Your task to perform on an android device: Go to battery settings Image 0: 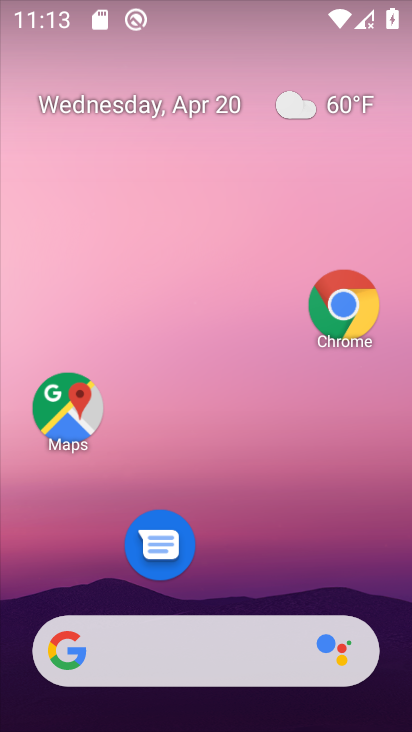
Step 0: click (249, 80)
Your task to perform on an android device: Go to battery settings Image 1: 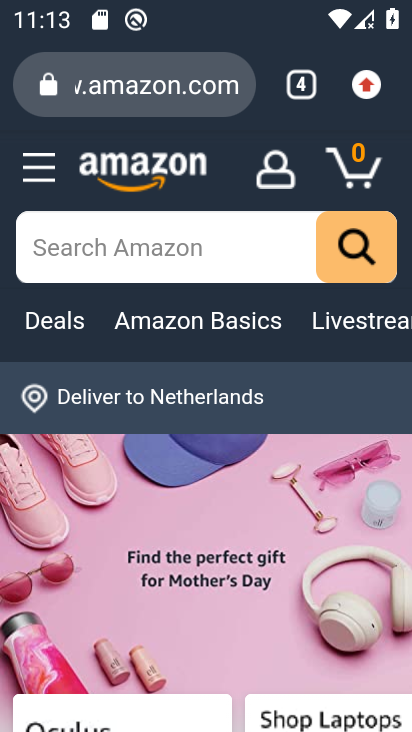
Step 1: press home button
Your task to perform on an android device: Go to battery settings Image 2: 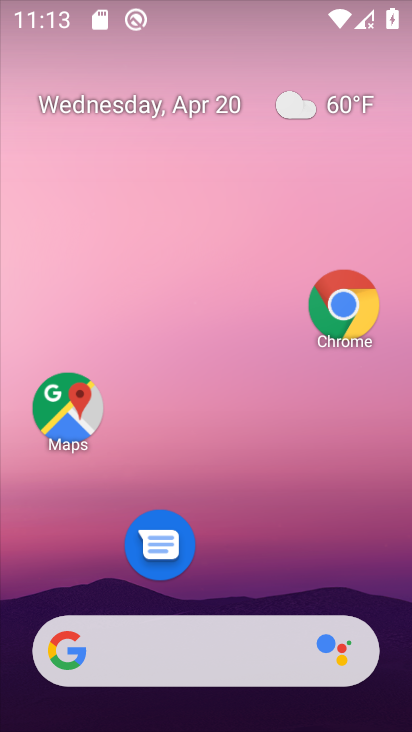
Step 2: drag from (216, 551) to (241, 71)
Your task to perform on an android device: Go to battery settings Image 3: 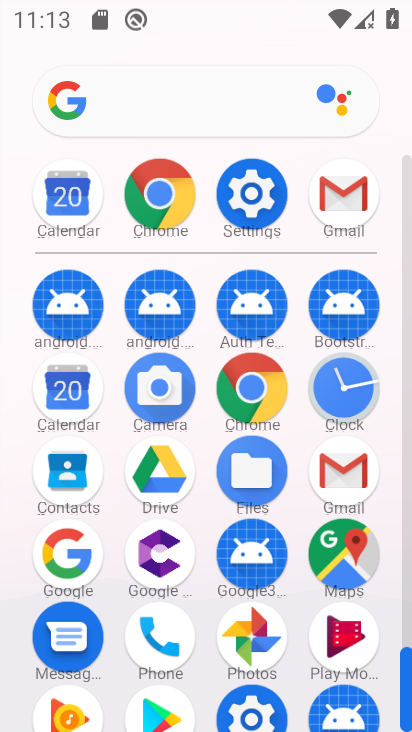
Step 3: click (240, 205)
Your task to perform on an android device: Go to battery settings Image 4: 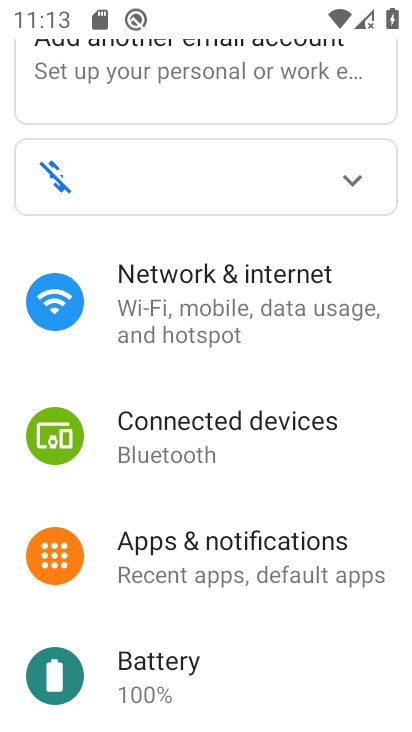
Step 4: click (187, 676)
Your task to perform on an android device: Go to battery settings Image 5: 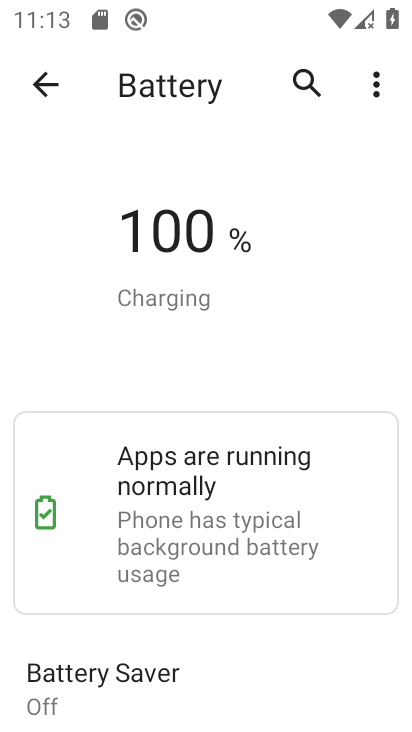
Step 5: task complete